Your task to perform on an android device: move a message to another label in the gmail app Image 0: 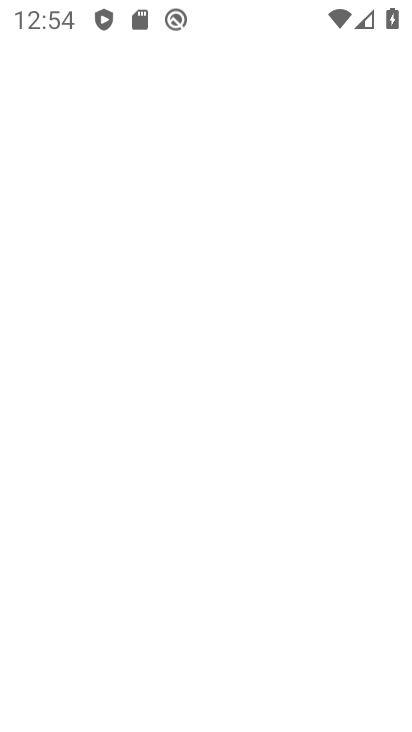
Step 0: press home button
Your task to perform on an android device: move a message to another label in the gmail app Image 1: 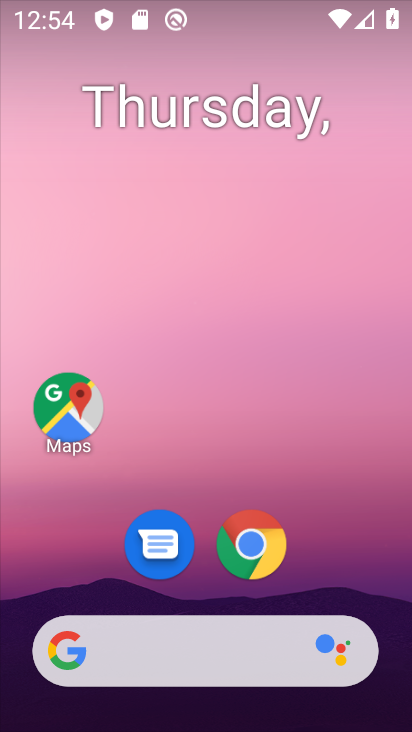
Step 1: drag from (184, 721) to (197, 85)
Your task to perform on an android device: move a message to another label in the gmail app Image 2: 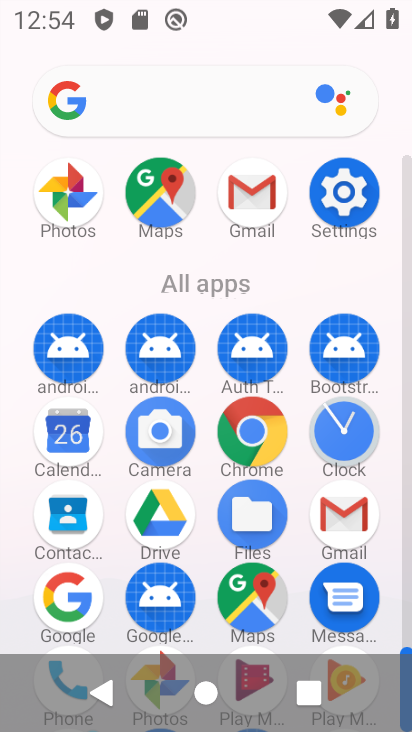
Step 2: click (332, 517)
Your task to perform on an android device: move a message to another label in the gmail app Image 3: 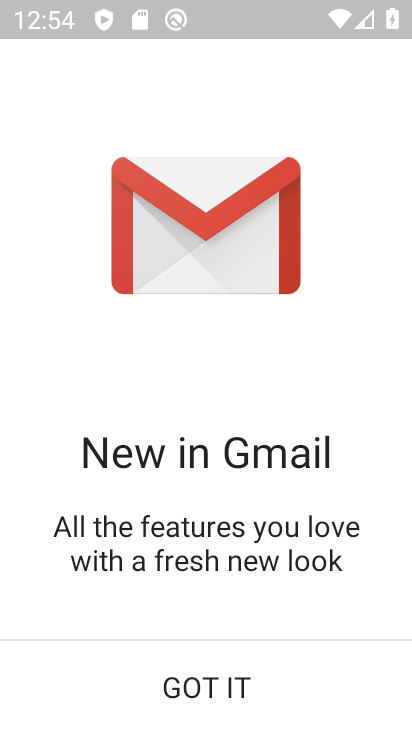
Step 3: click (206, 685)
Your task to perform on an android device: move a message to another label in the gmail app Image 4: 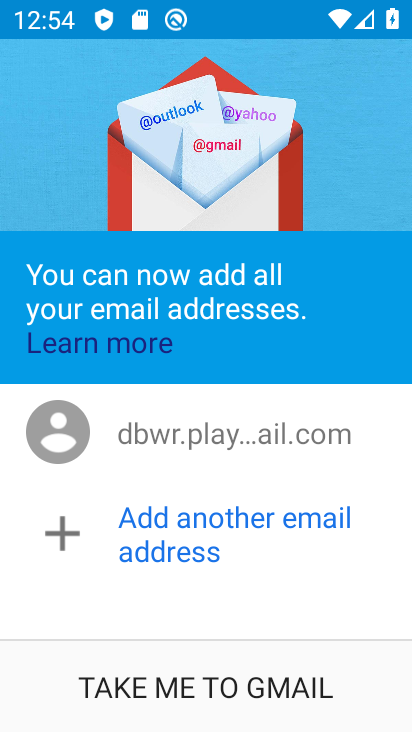
Step 4: click (205, 683)
Your task to perform on an android device: move a message to another label in the gmail app Image 5: 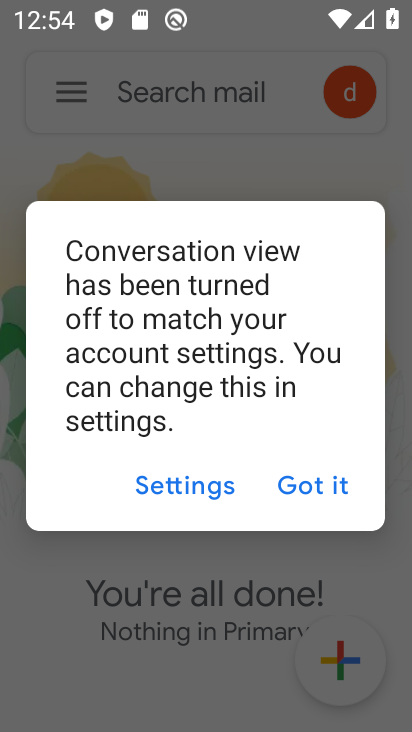
Step 5: click (312, 485)
Your task to perform on an android device: move a message to another label in the gmail app Image 6: 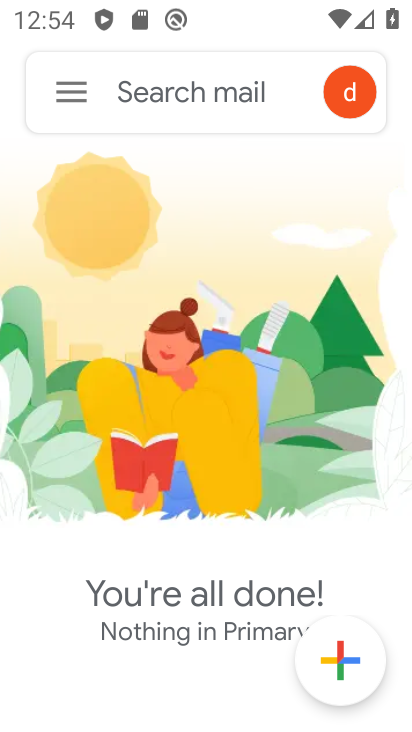
Step 6: task complete